Your task to perform on an android device: Open the map Image 0: 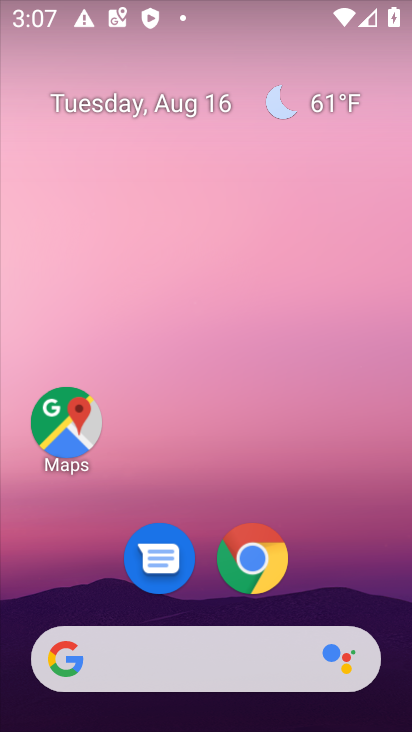
Step 0: click (68, 423)
Your task to perform on an android device: Open the map Image 1: 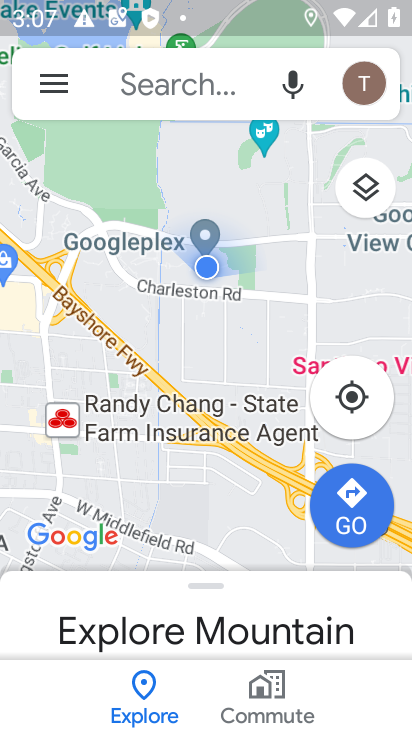
Step 1: task complete